Your task to perform on an android device: turn off translation in the chrome app Image 0: 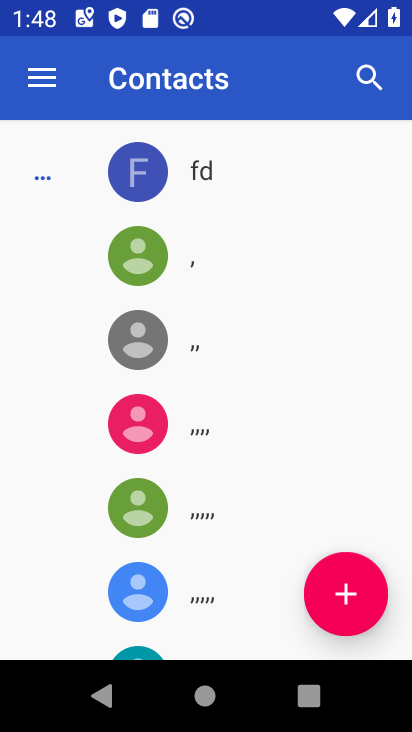
Step 0: press home button
Your task to perform on an android device: turn off translation in the chrome app Image 1: 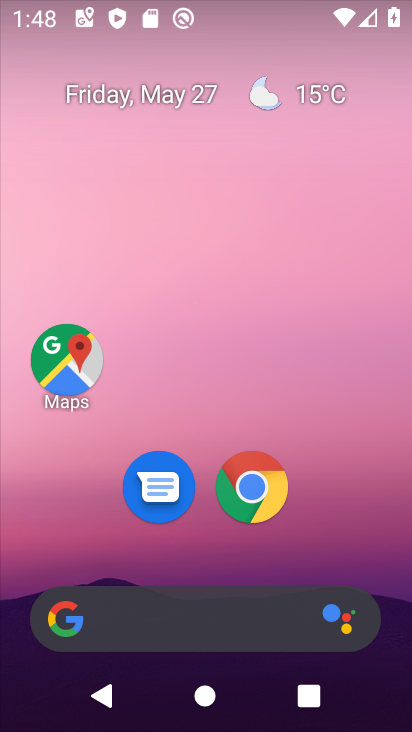
Step 1: click (245, 500)
Your task to perform on an android device: turn off translation in the chrome app Image 2: 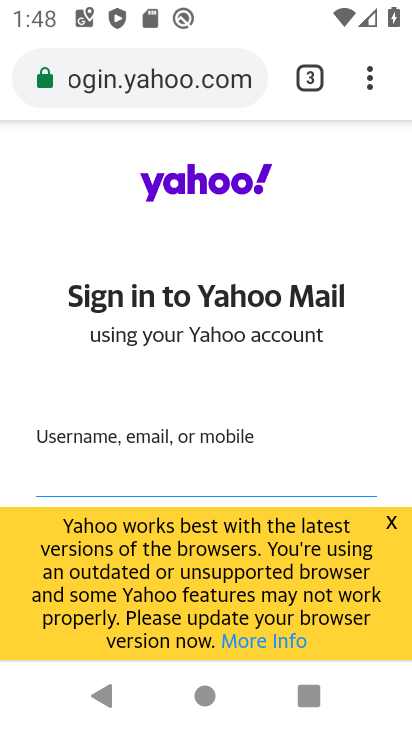
Step 2: click (375, 87)
Your task to perform on an android device: turn off translation in the chrome app Image 3: 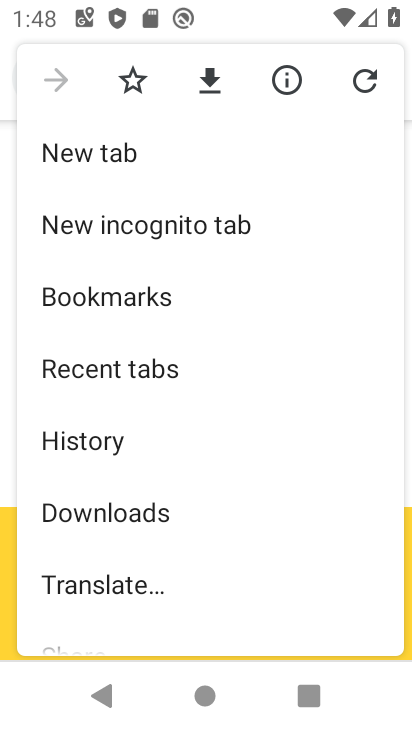
Step 3: drag from (145, 436) to (215, 178)
Your task to perform on an android device: turn off translation in the chrome app Image 4: 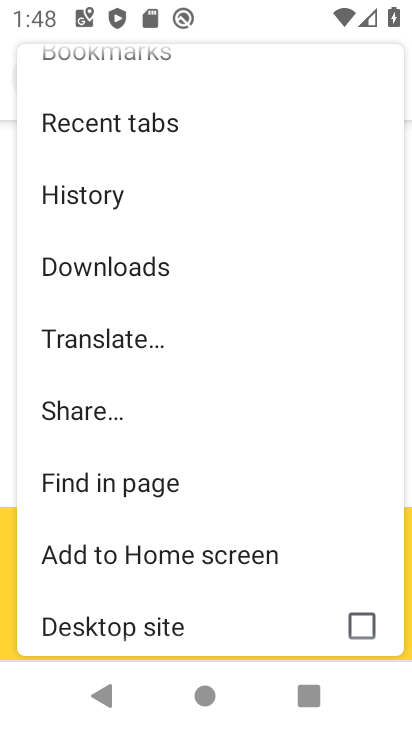
Step 4: drag from (142, 568) to (186, 263)
Your task to perform on an android device: turn off translation in the chrome app Image 5: 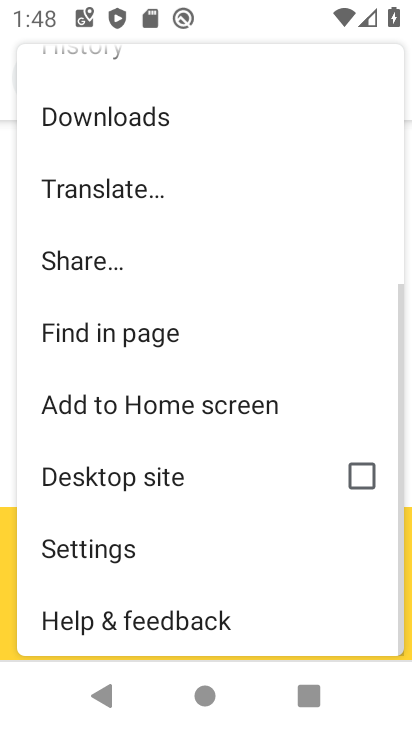
Step 5: click (127, 559)
Your task to perform on an android device: turn off translation in the chrome app Image 6: 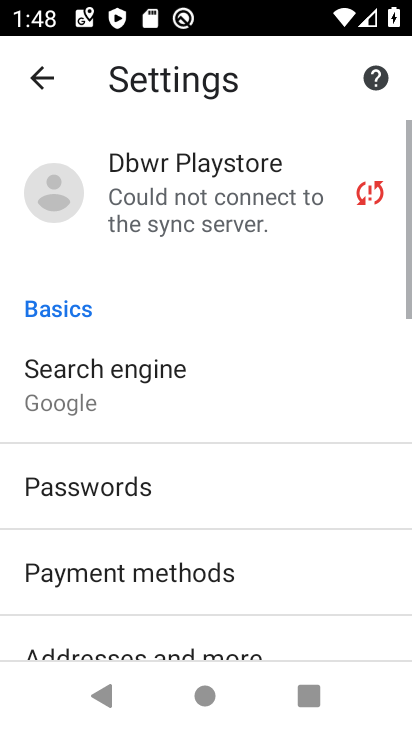
Step 6: drag from (127, 559) to (159, 236)
Your task to perform on an android device: turn off translation in the chrome app Image 7: 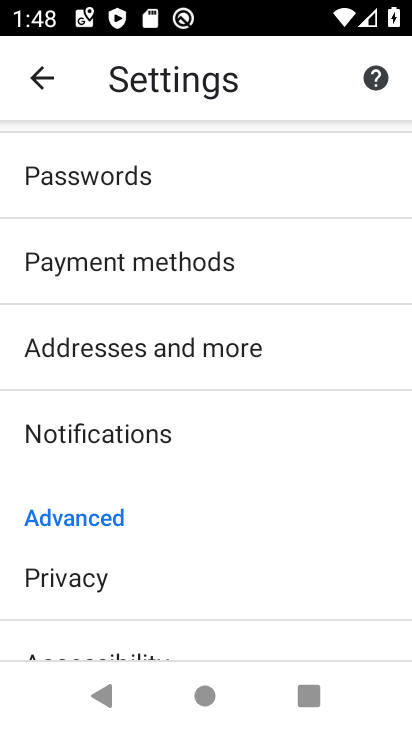
Step 7: drag from (113, 599) to (193, 162)
Your task to perform on an android device: turn off translation in the chrome app Image 8: 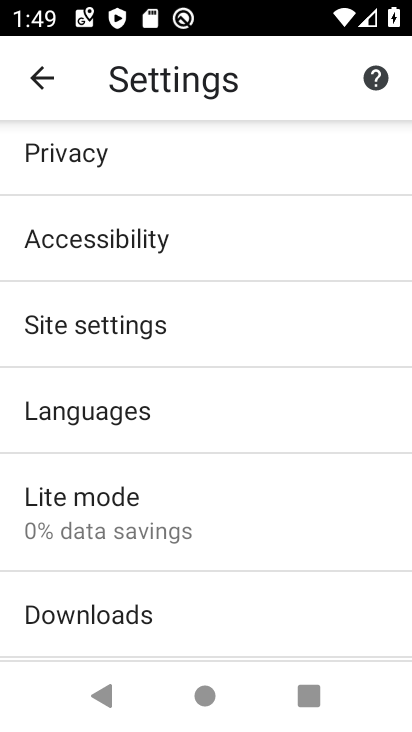
Step 8: click (188, 438)
Your task to perform on an android device: turn off translation in the chrome app Image 9: 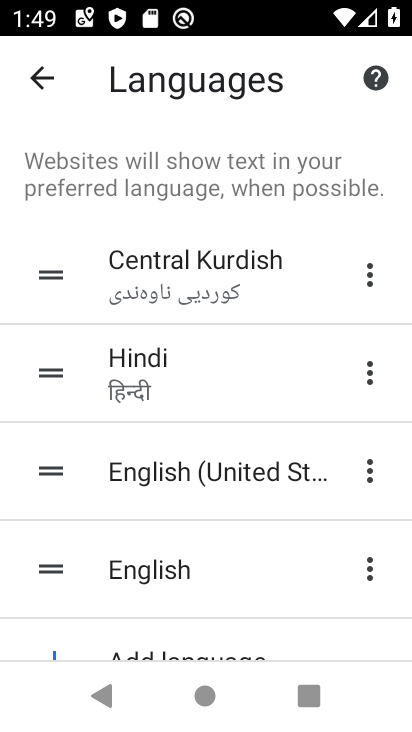
Step 9: task complete